Your task to perform on an android device: Open the calendar and show me this week's events? Image 0: 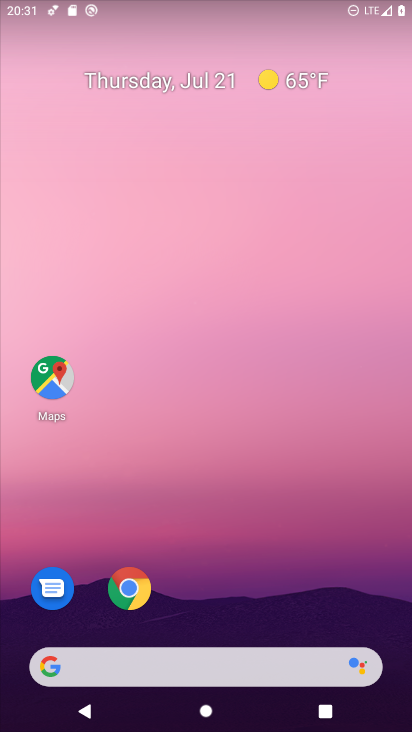
Step 0: drag from (187, 397) to (134, 48)
Your task to perform on an android device: Open the calendar and show me this week's events? Image 1: 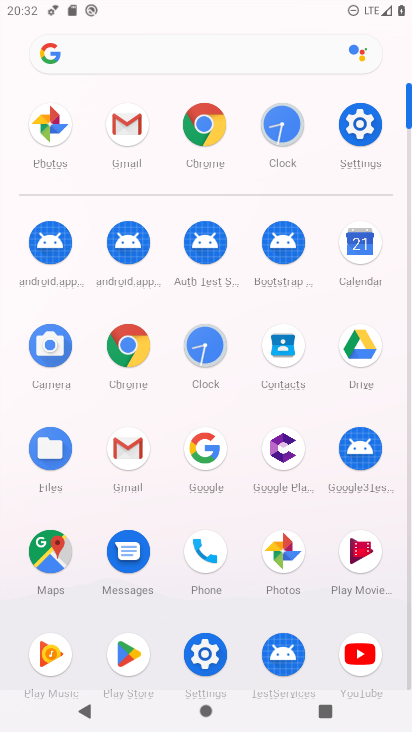
Step 1: click (342, 260)
Your task to perform on an android device: Open the calendar and show me this week's events? Image 2: 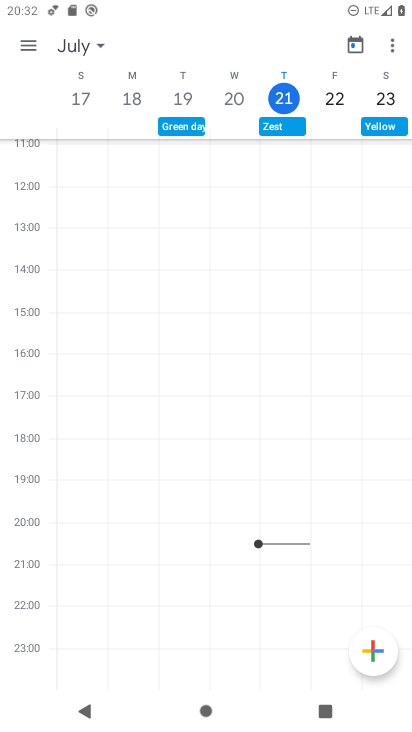
Step 2: task complete